Your task to perform on an android device: Add "apple airpods" to the cart on amazon, then select checkout. Image 0: 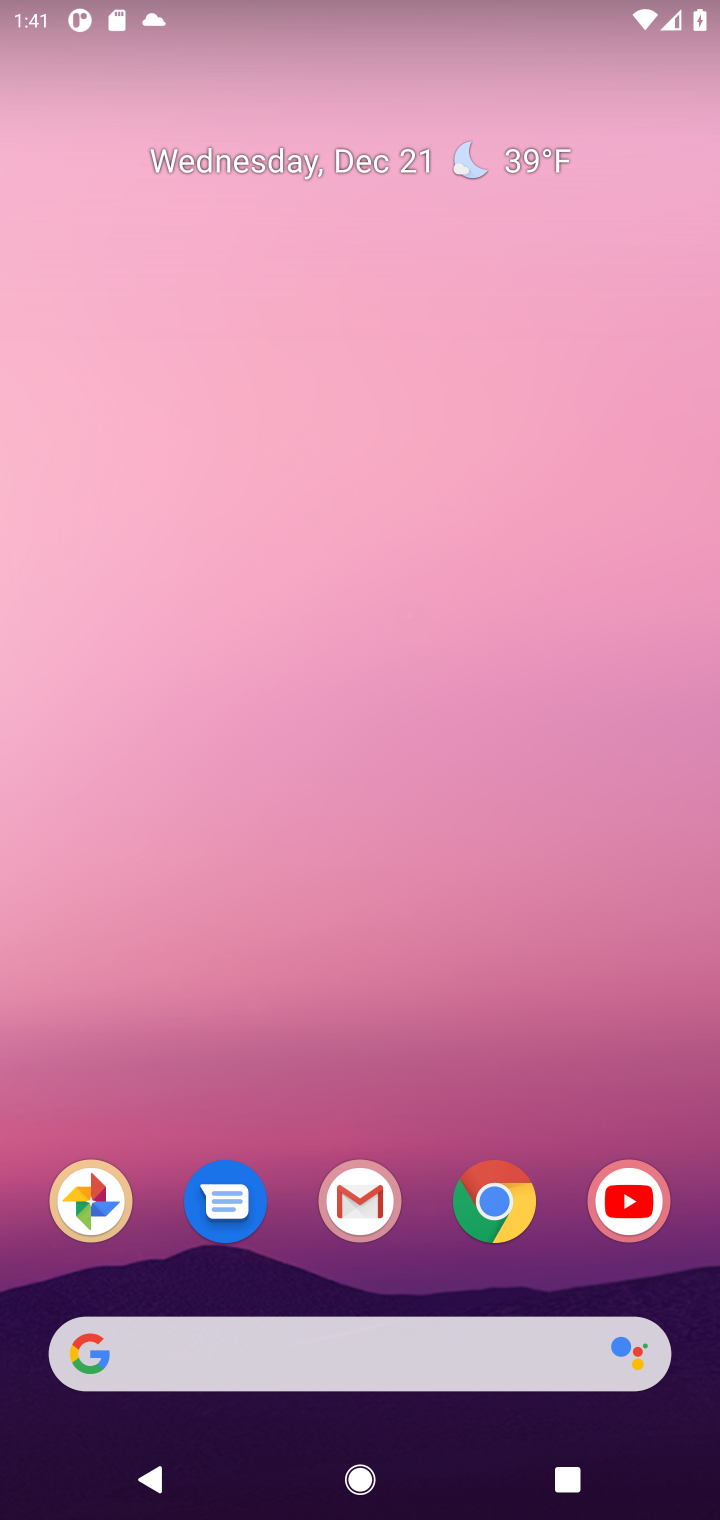
Step 0: click (515, 1227)
Your task to perform on an android device: Add "apple airpods" to the cart on amazon, then select checkout. Image 1: 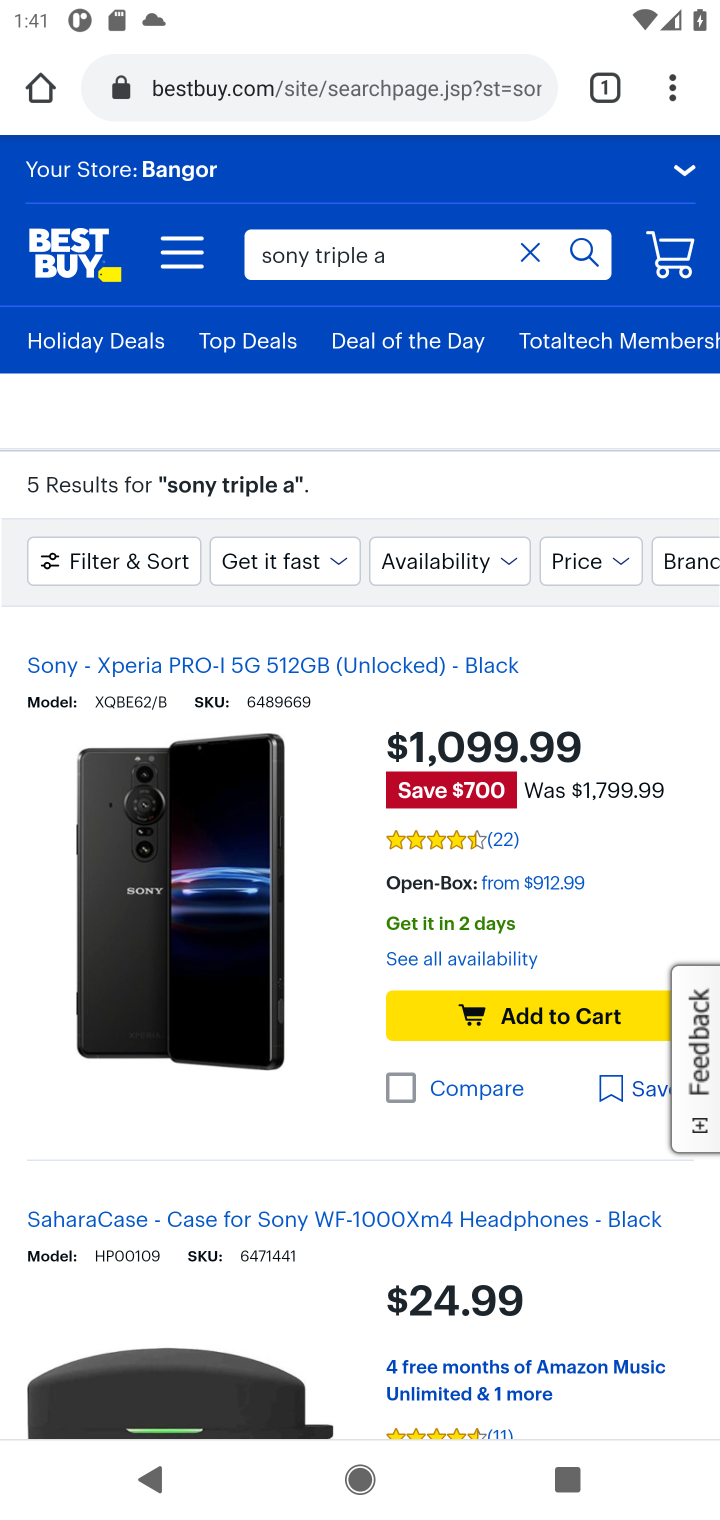
Step 1: click (237, 79)
Your task to perform on an android device: Add "apple airpods" to the cart on amazon, then select checkout. Image 2: 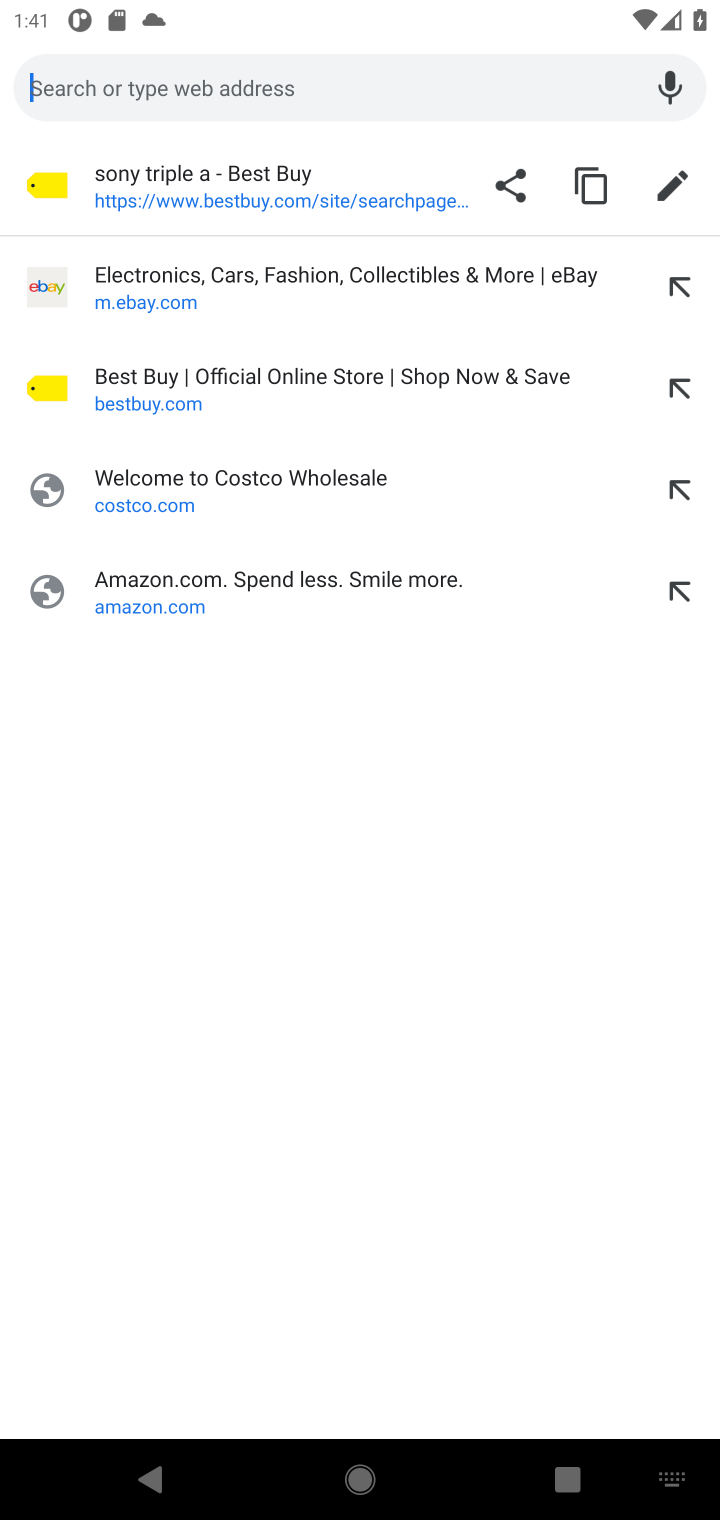
Step 2: click (133, 597)
Your task to perform on an android device: Add "apple airpods" to the cart on amazon, then select checkout. Image 3: 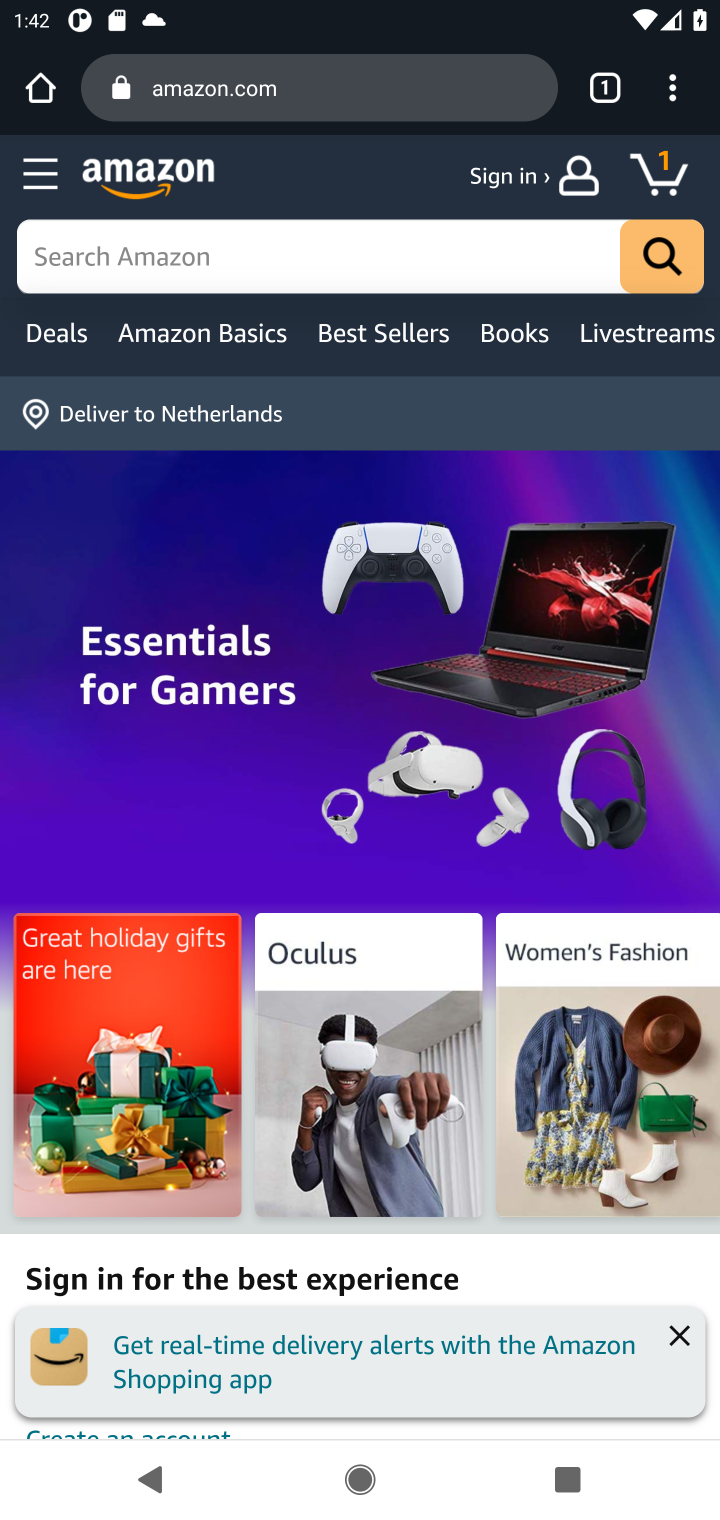
Step 3: click (161, 253)
Your task to perform on an android device: Add "apple airpods" to the cart on amazon, then select checkout. Image 4: 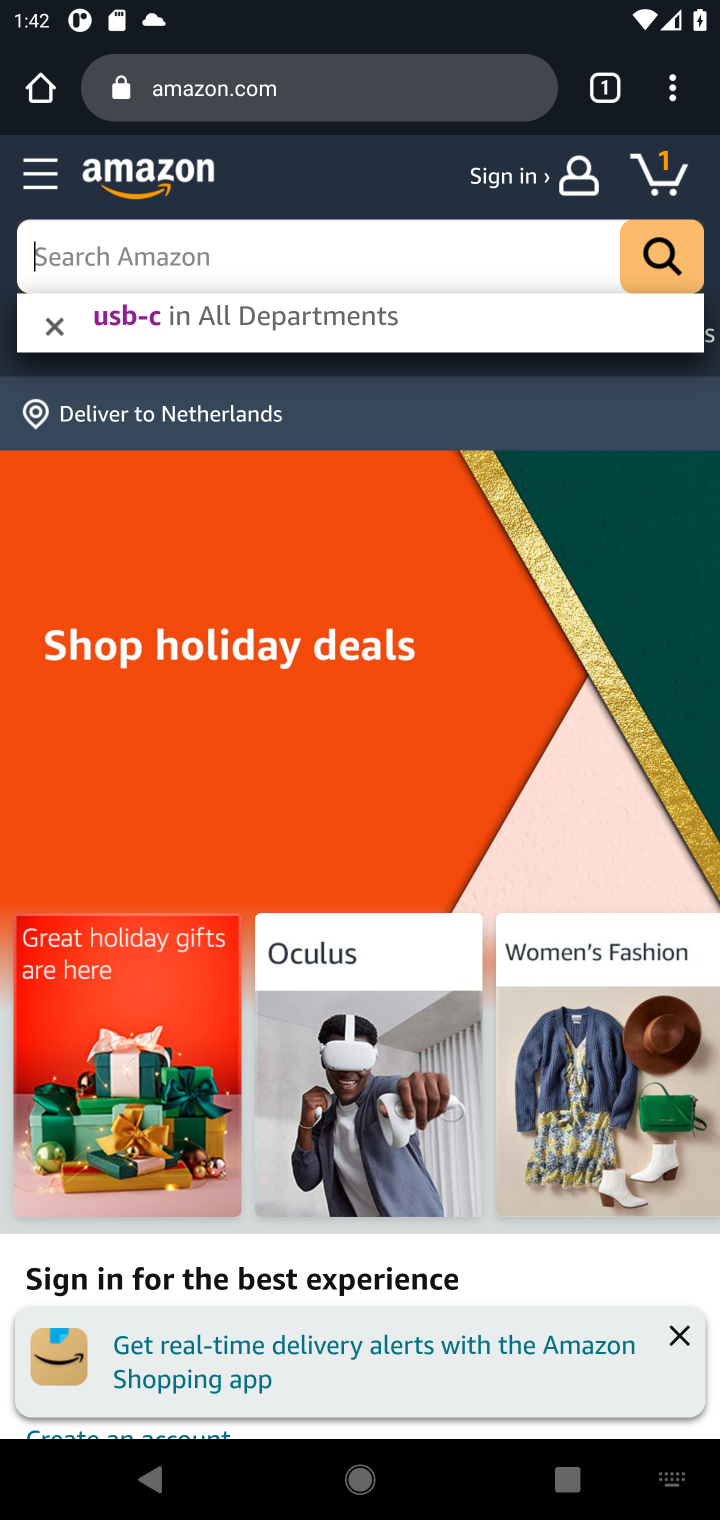
Step 4: type "apple airpods"
Your task to perform on an android device: Add "apple airpods" to the cart on amazon, then select checkout. Image 5: 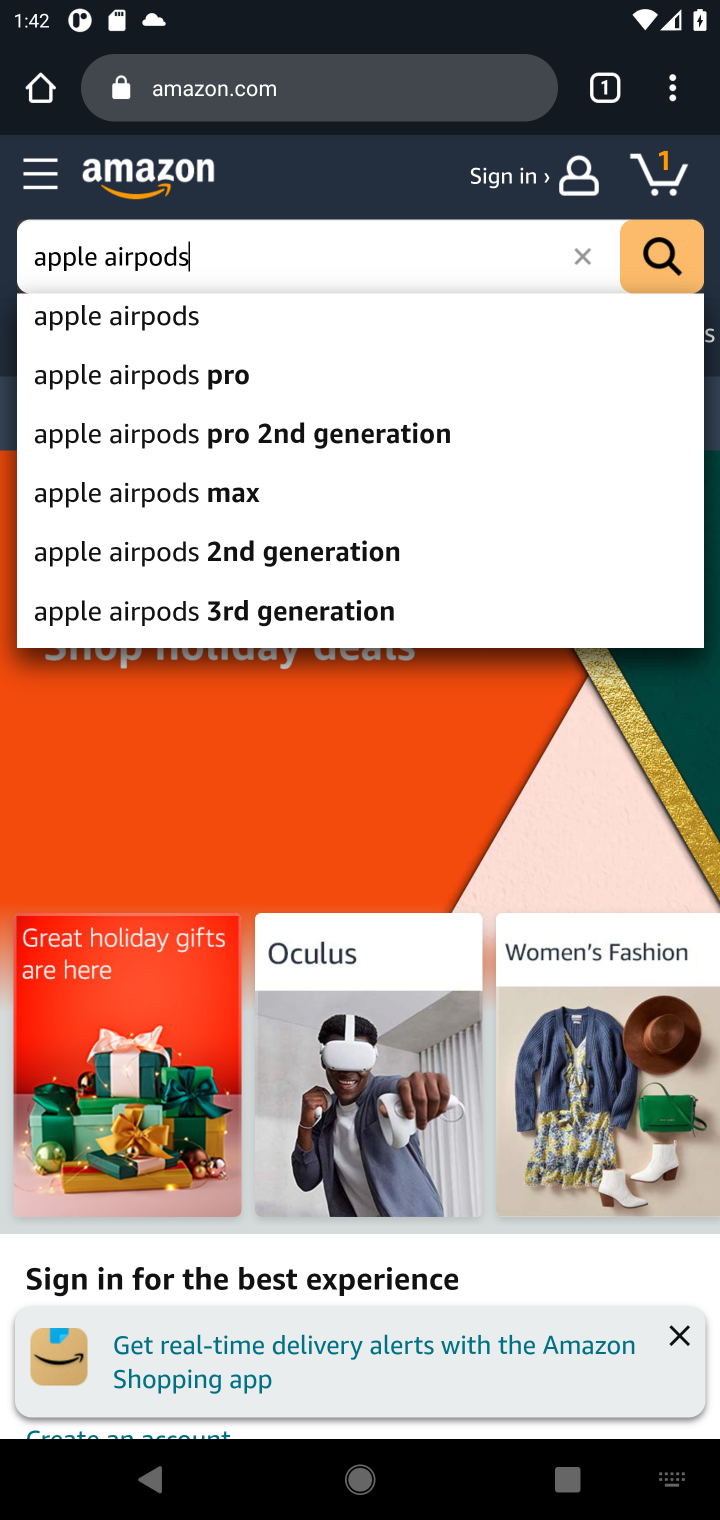
Step 5: click (129, 325)
Your task to perform on an android device: Add "apple airpods" to the cart on amazon, then select checkout. Image 6: 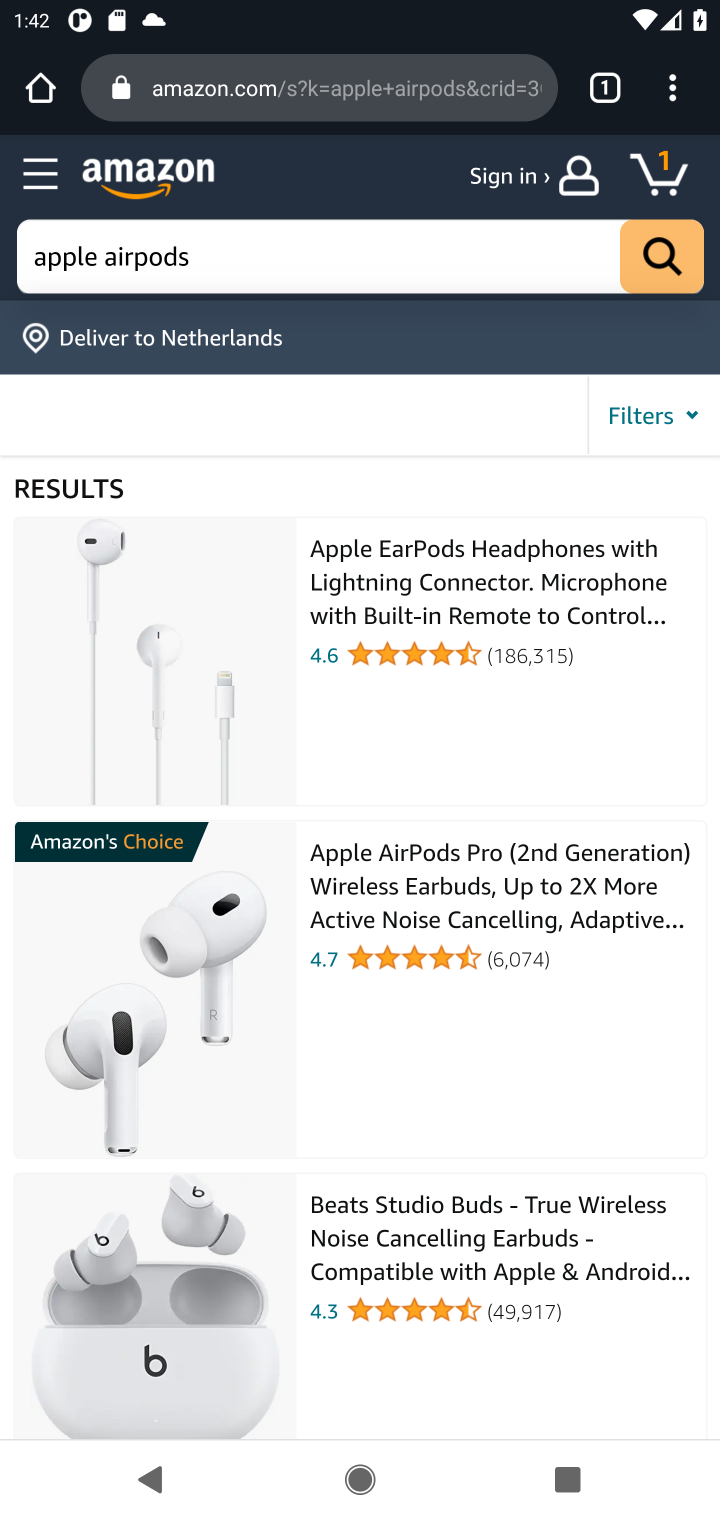
Step 6: drag from (288, 874) to (282, 426)
Your task to perform on an android device: Add "apple airpods" to the cart on amazon, then select checkout. Image 7: 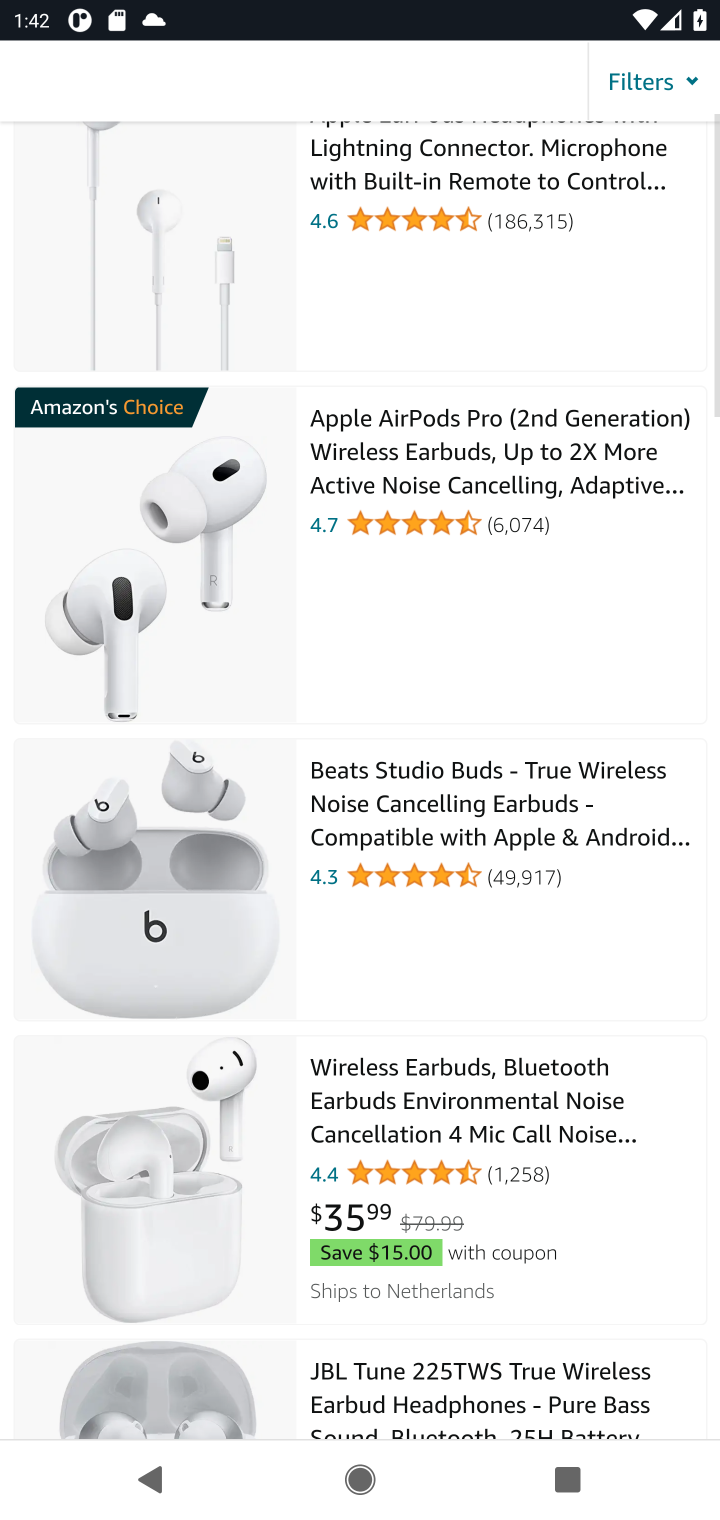
Step 7: drag from (380, 1014) to (340, 605)
Your task to perform on an android device: Add "apple airpods" to the cart on amazon, then select checkout. Image 8: 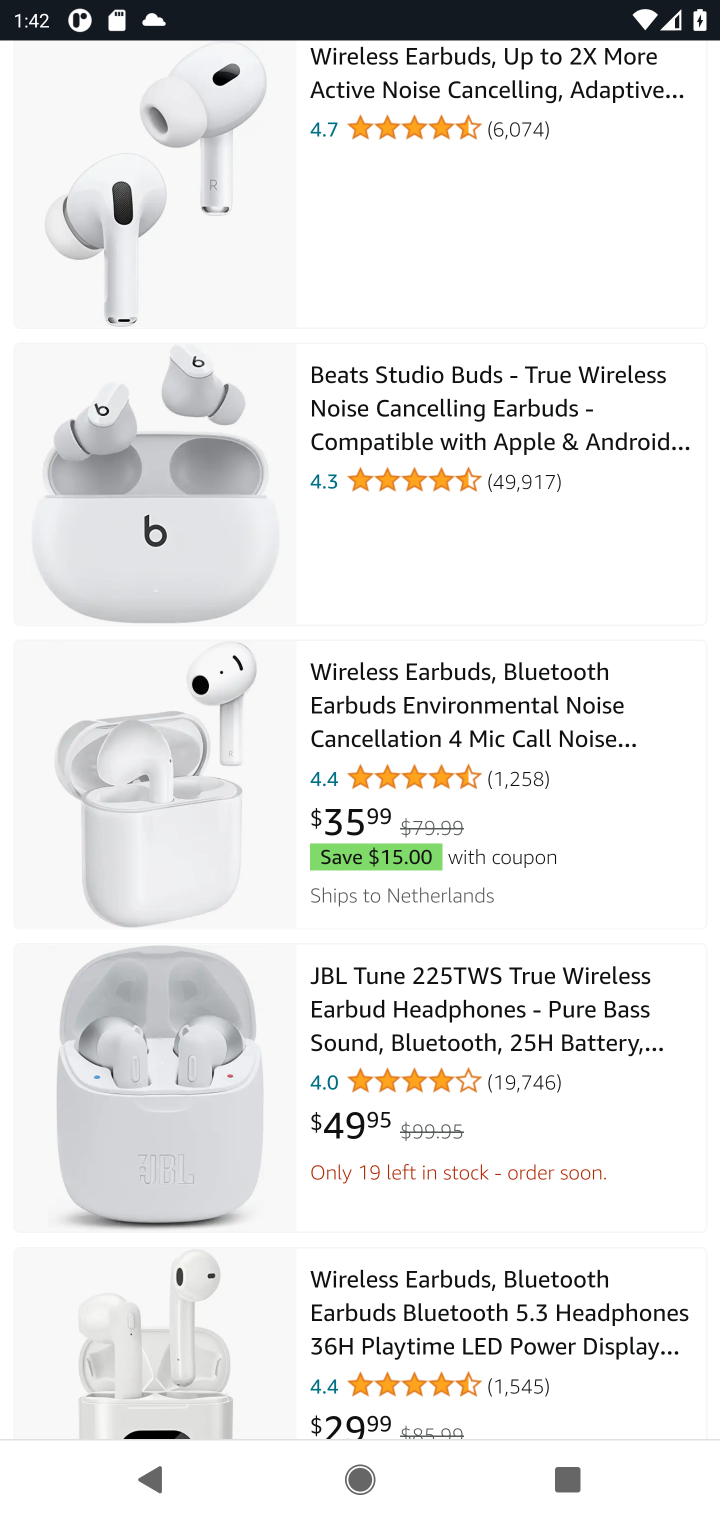
Step 8: drag from (330, 1068) to (330, 547)
Your task to perform on an android device: Add "apple airpods" to the cart on amazon, then select checkout. Image 9: 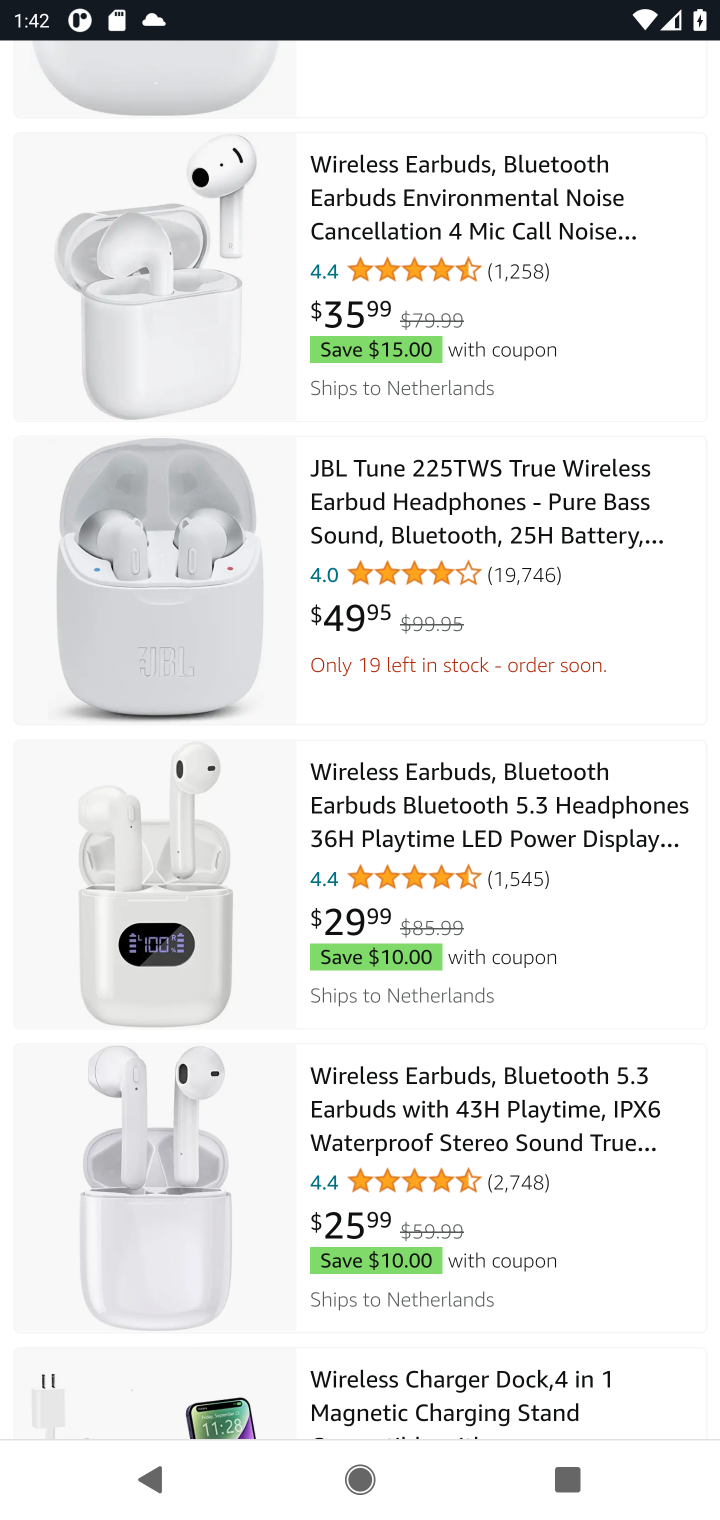
Step 9: drag from (390, 1121) to (390, 656)
Your task to perform on an android device: Add "apple airpods" to the cart on amazon, then select checkout. Image 10: 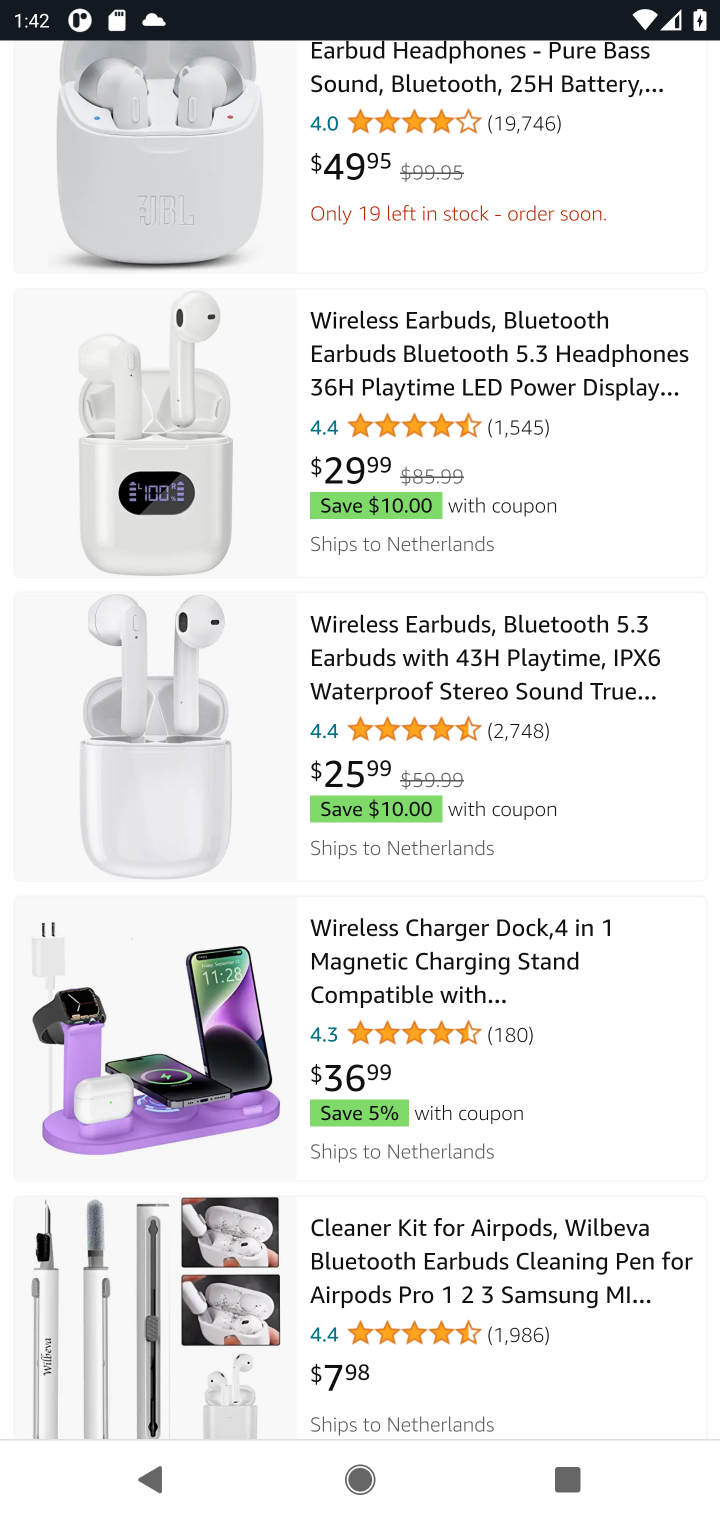
Step 10: drag from (333, 1157) to (331, 860)
Your task to perform on an android device: Add "apple airpods" to the cart on amazon, then select checkout. Image 11: 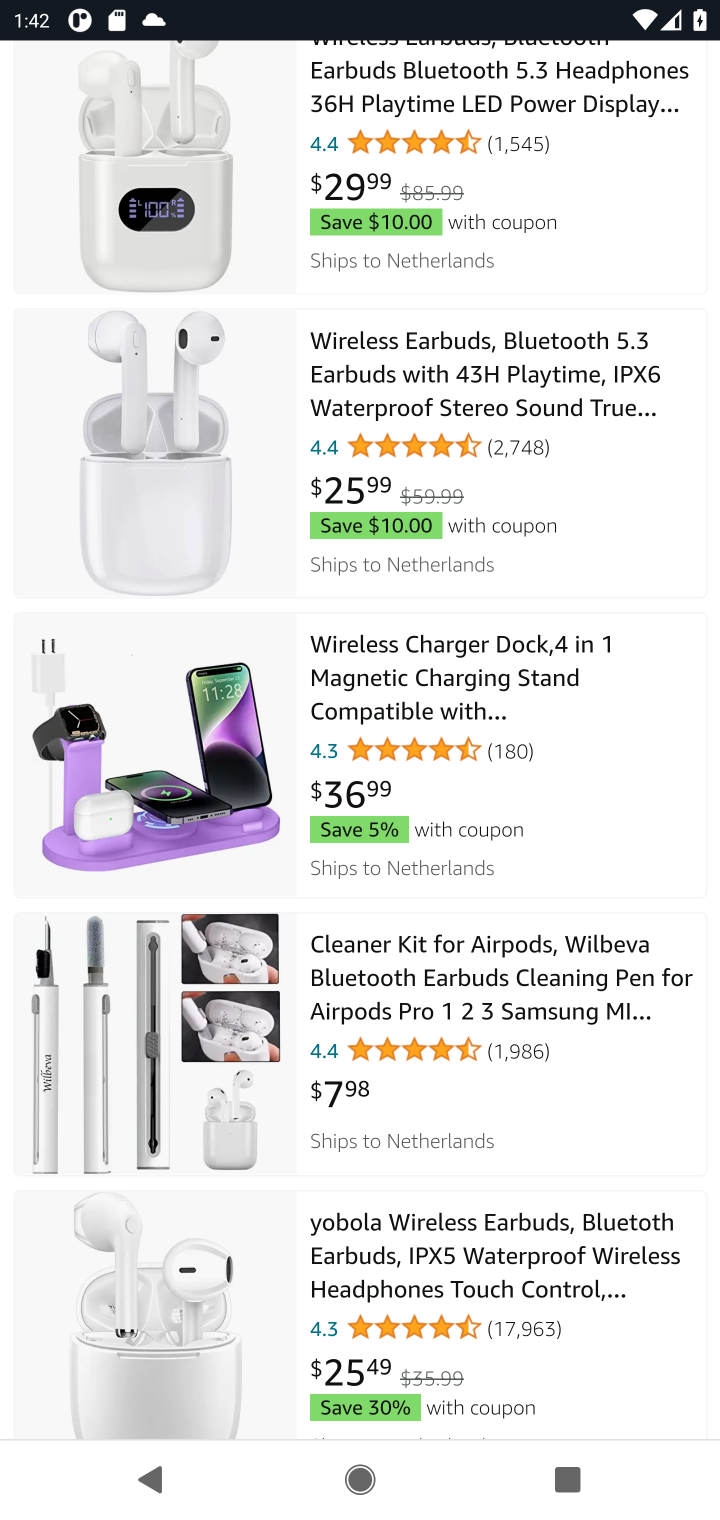
Step 11: click (357, 979)
Your task to perform on an android device: Add "apple airpods" to the cart on amazon, then select checkout. Image 12: 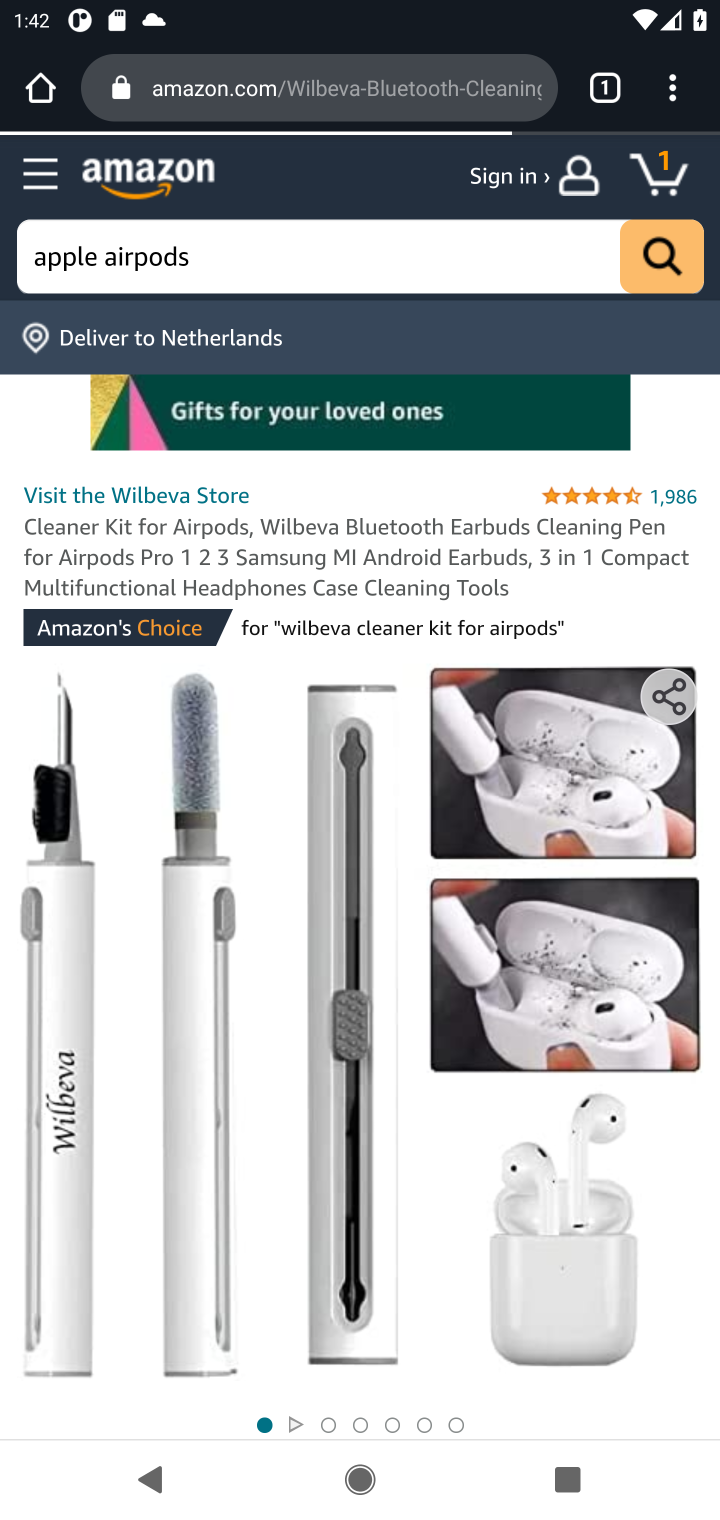
Step 12: drag from (330, 1072) to (335, 509)
Your task to perform on an android device: Add "apple airpods" to the cart on amazon, then select checkout. Image 13: 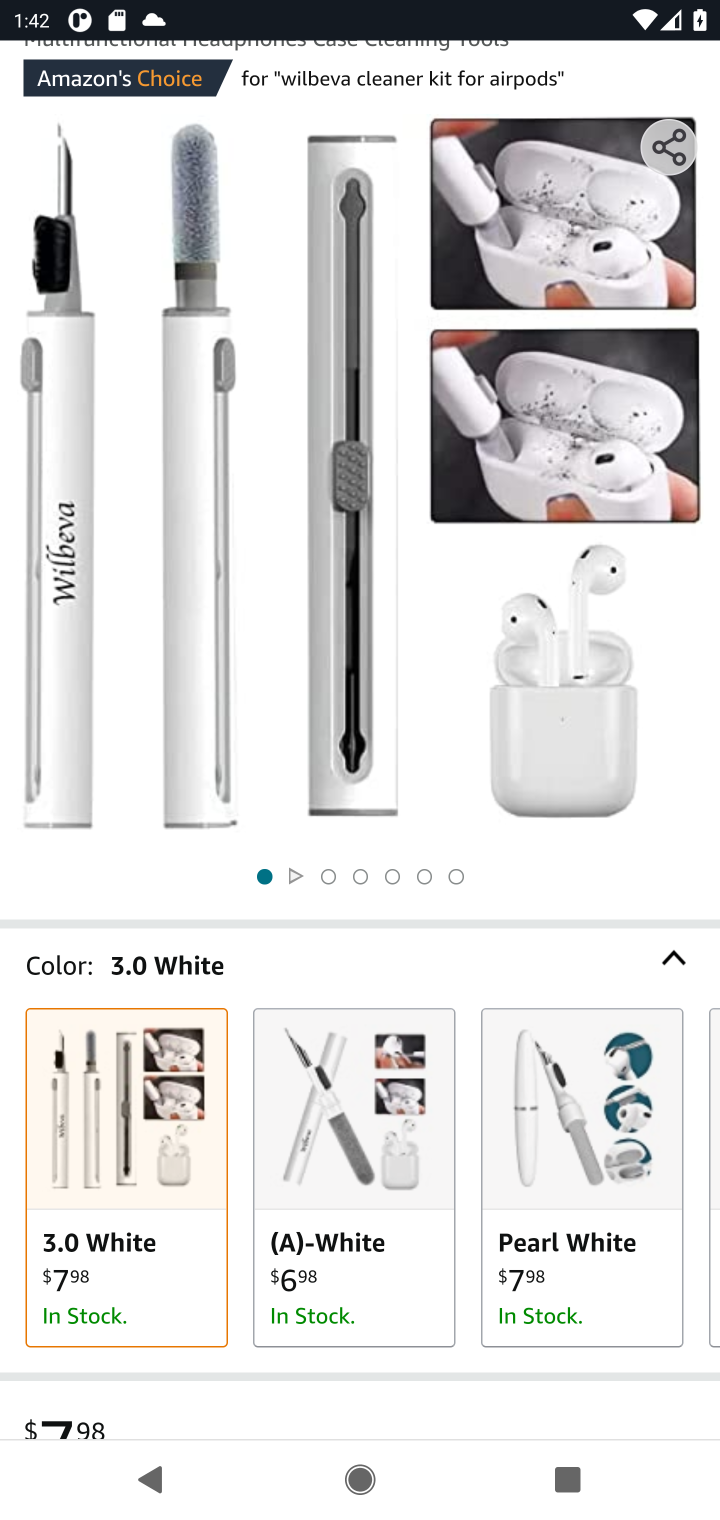
Step 13: drag from (390, 1242) to (388, 593)
Your task to perform on an android device: Add "apple airpods" to the cart on amazon, then select checkout. Image 14: 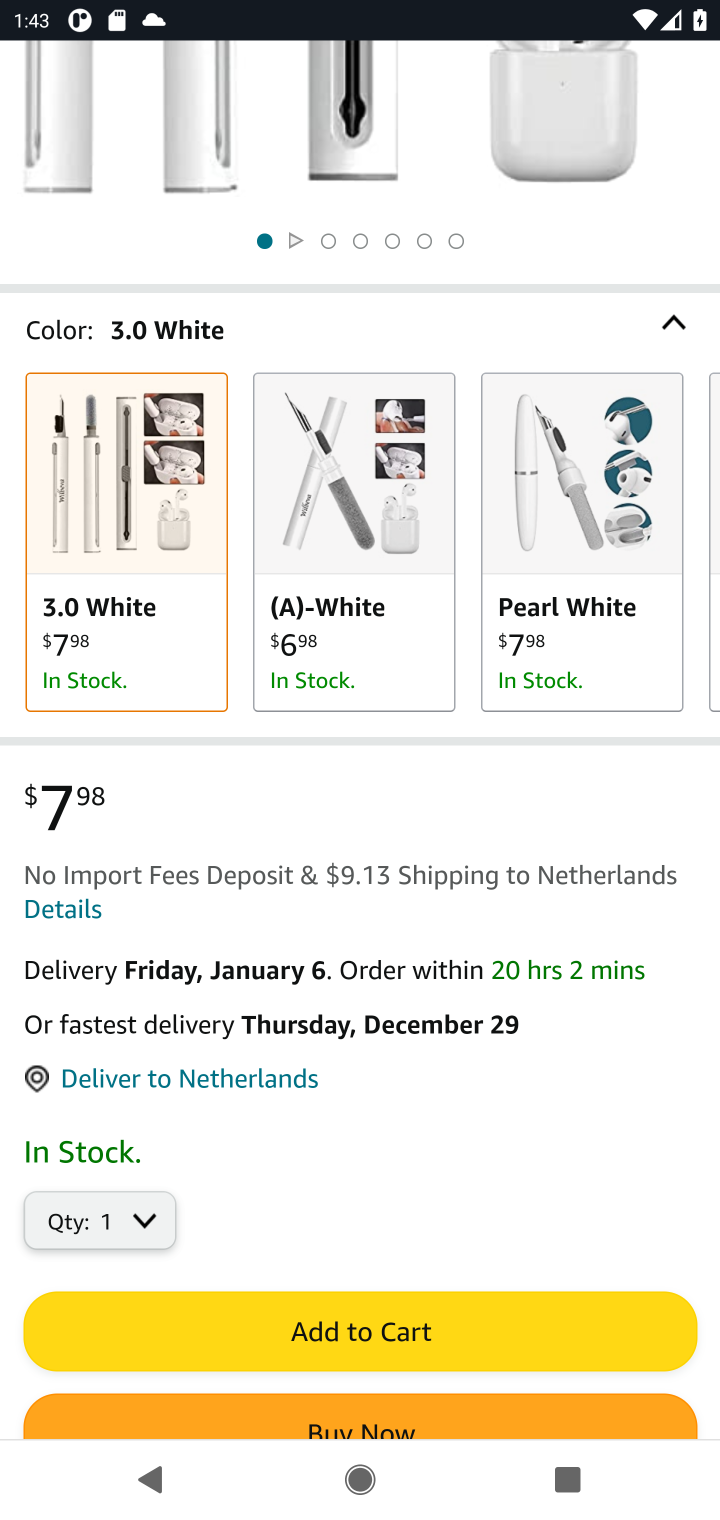
Step 14: click (347, 1312)
Your task to perform on an android device: Add "apple airpods" to the cart on amazon, then select checkout. Image 15: 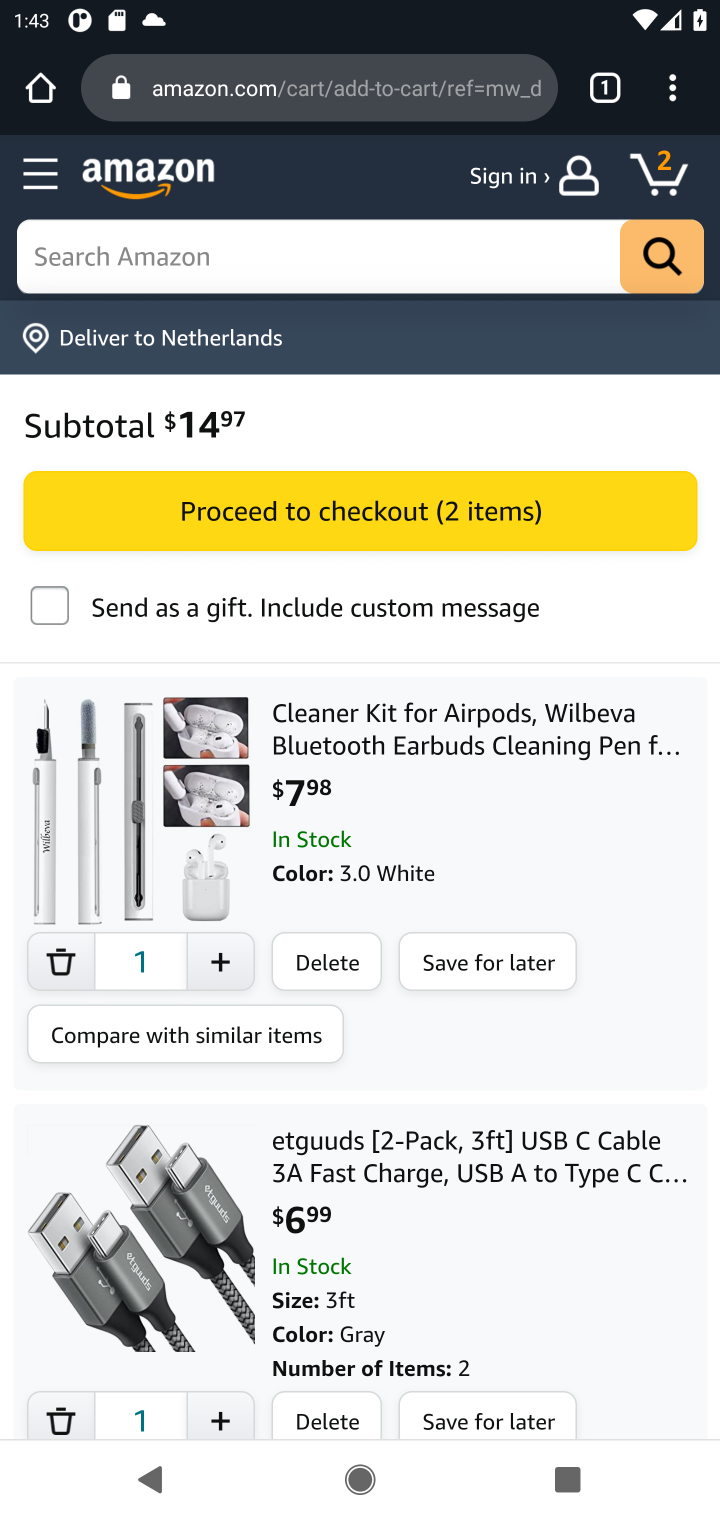
Step 15: click (319, 521)
Your task to perform on an android device: Add "apple airpods" to the cart on amazon, then select checkout. Image 16: 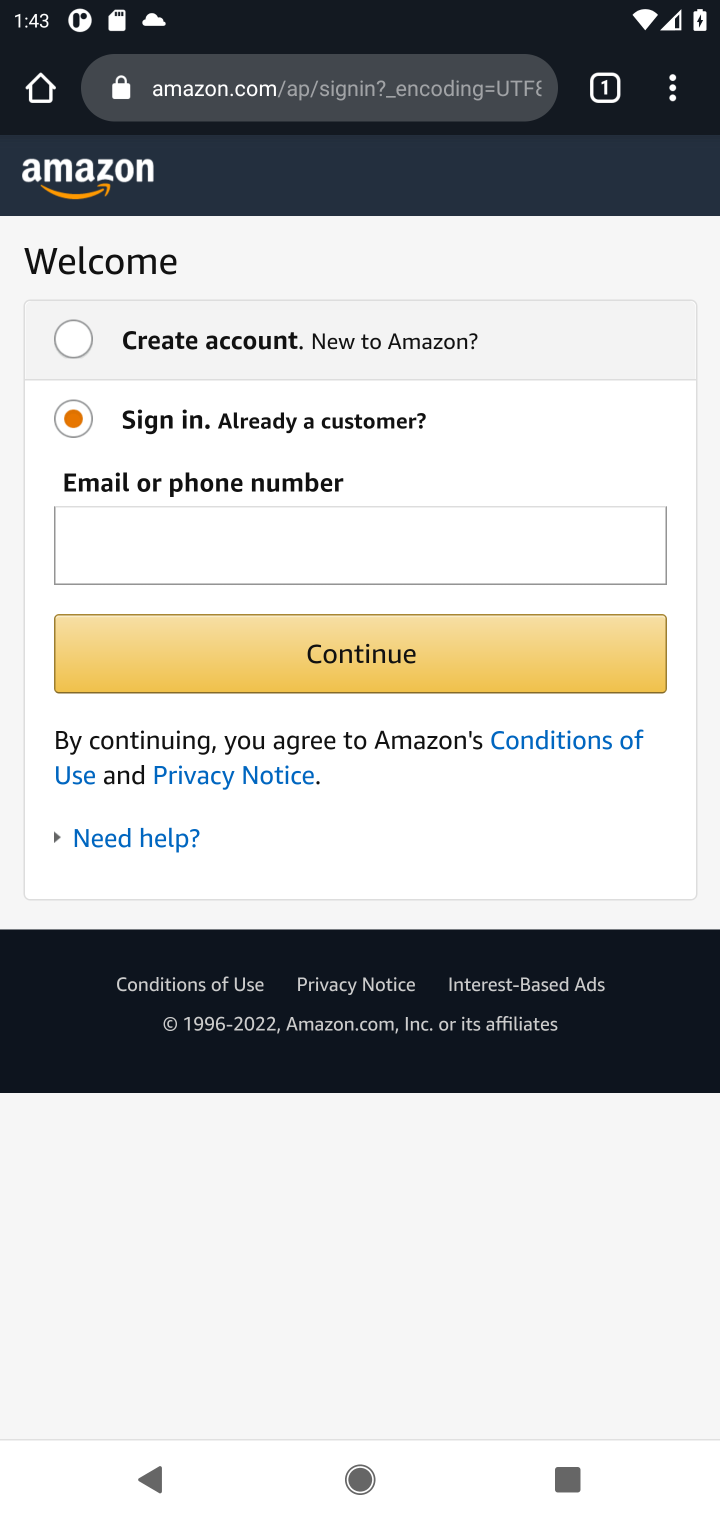
Step 16: task complete